Your task to perform on an android device: turn pop-ups off in chrome Image 0: 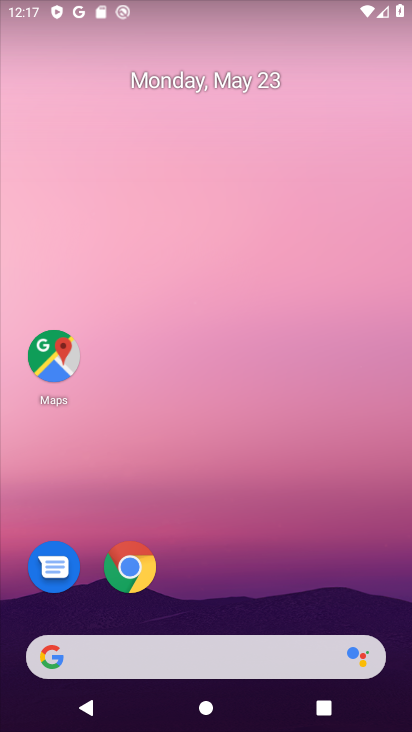
Step 0: click (124, 574)
Your task to perform on an android device: turn pop-ups off in chrome Image 1: 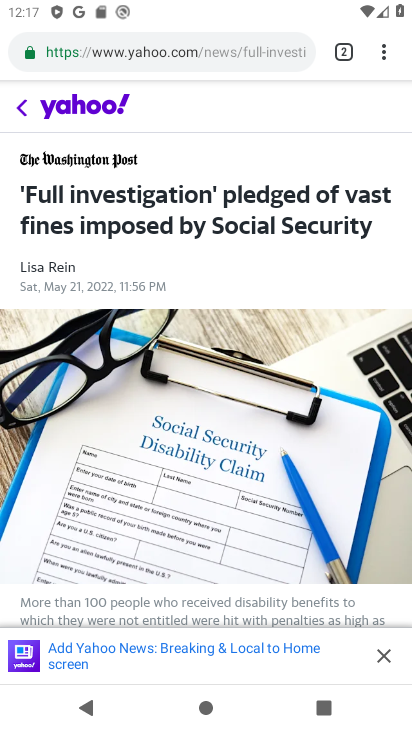
Step 1: click (376, 50)
Your task to perform on an android device: turn pop-ups off in chrome Image 2: 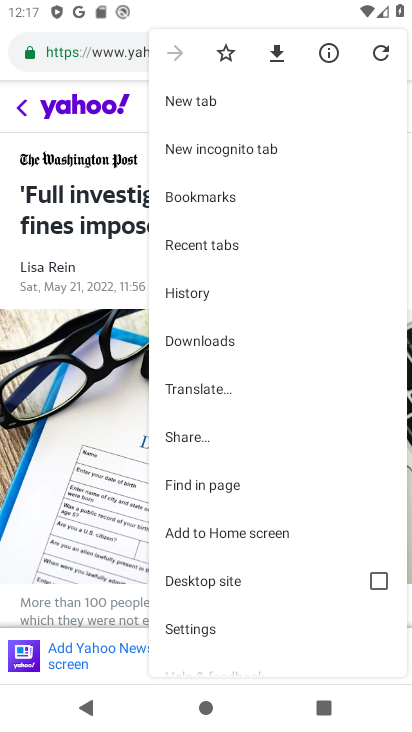
Step 2: click (212, 620)
Your task to perform on an android device: turn pop-ups off in chrome Image 3: 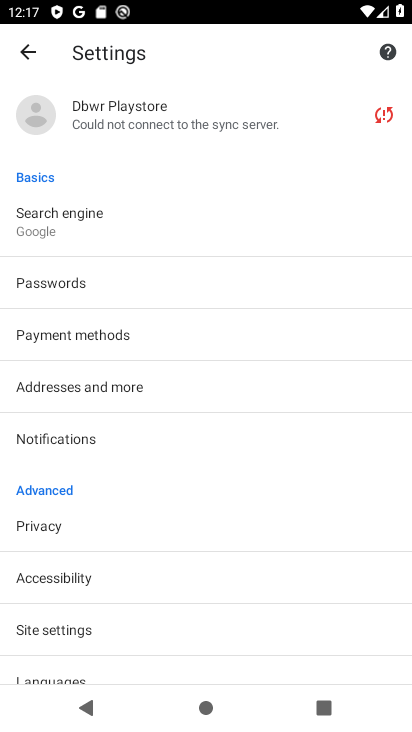
Step 3: click (137, 638)
Your task to perform on an android device: turn pop-ups off in chrome Image 4: 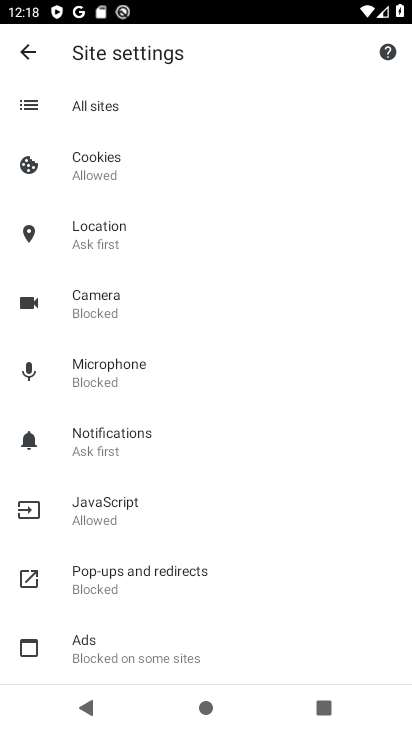
Step 4: click (174, 573)
Your task to perform on an android device: turn pop-ups off in chrome Image 5: 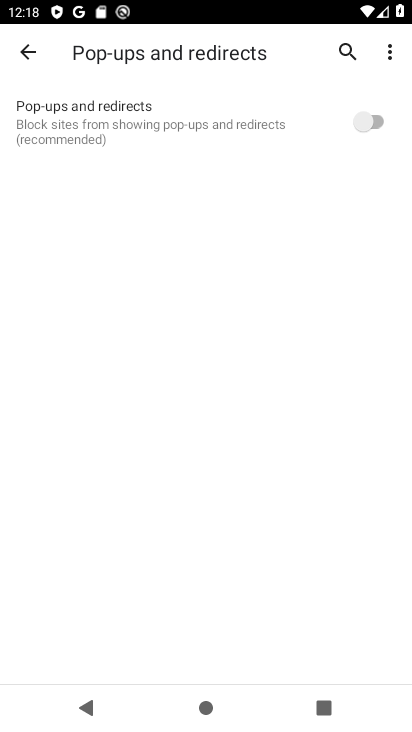
Step 5: task complete